Your task to perform on an android device: Open display settings Image 0: 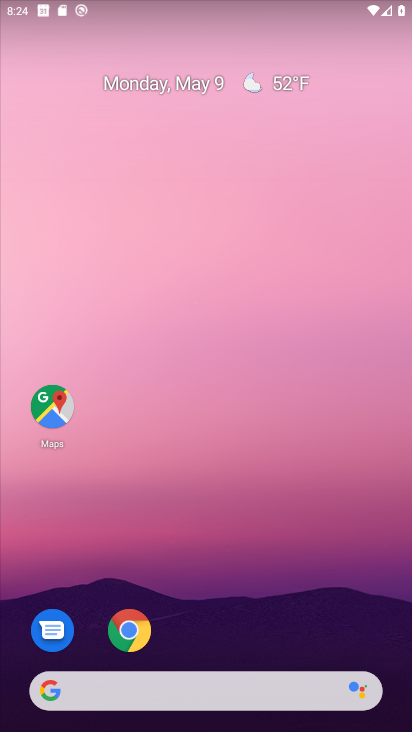
Step 0: drag from (219, 642) to (280, 149)
Your task to perform on an android device: Open display settings Image 1: 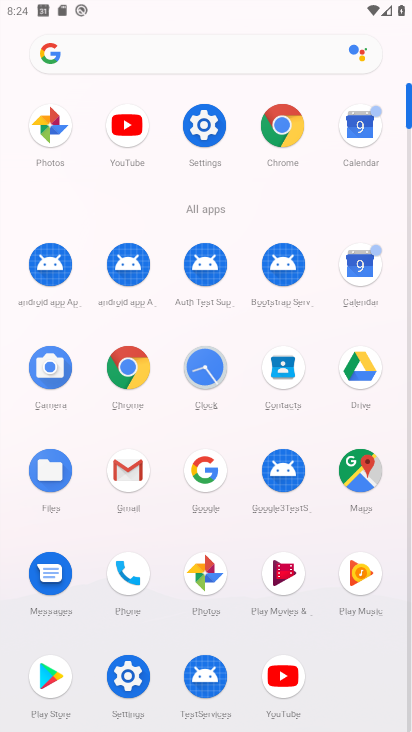
Step 1: click (198, 147)
Your task to perform on an android device: Open display settings Image 2: 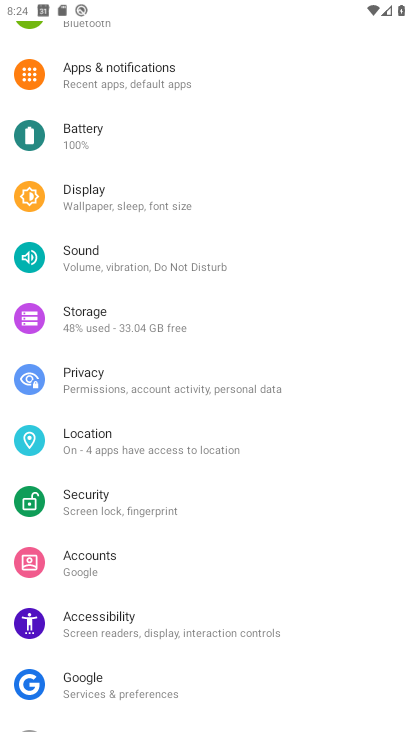
Step 2: click (135, 198)
Your task to perform on an android device: Open display settings Image 3: 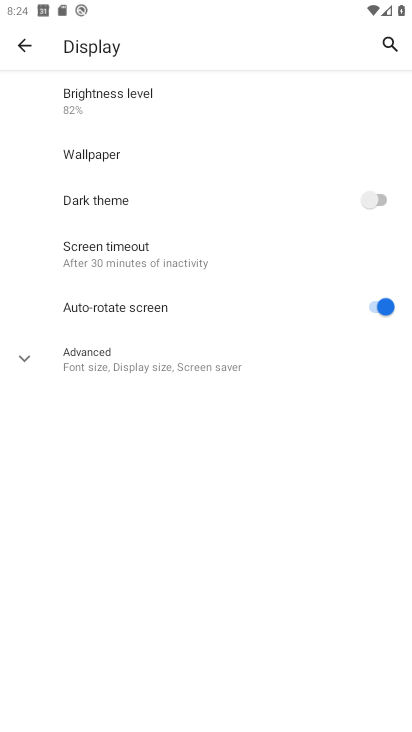
Step 3: task complete